Your task to perform on an android device: Open Youtube and go to the subscriptions tab Image 0: 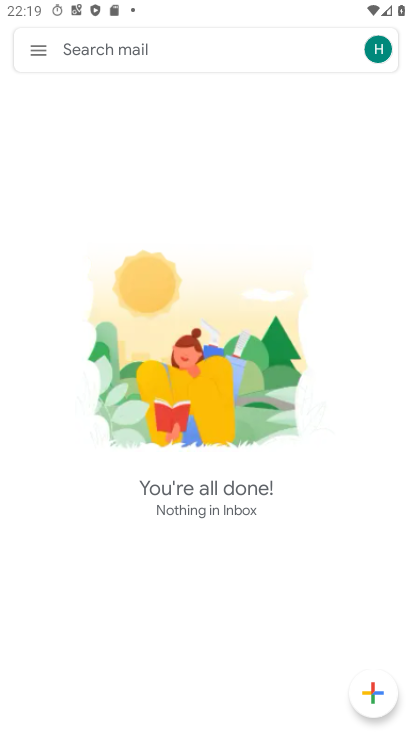
Step 0: press back button
Your task to perform on an android device: Open Youtube and go to the subscriptions tab Image 1: 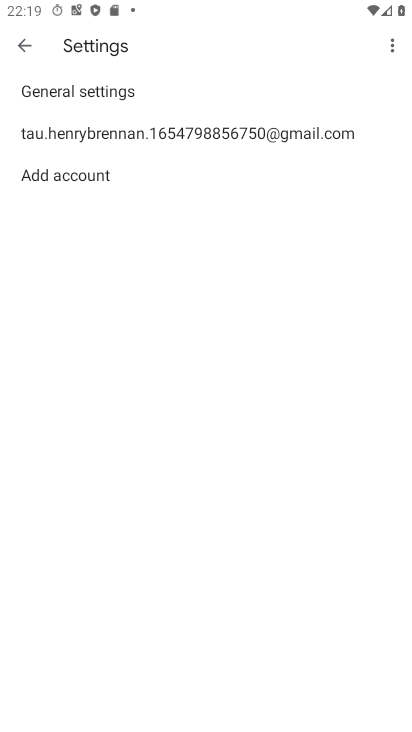
Step 1: press back button
Your task to perform on an android device: Open Youtube and go to the subscriptions tab Image 2: 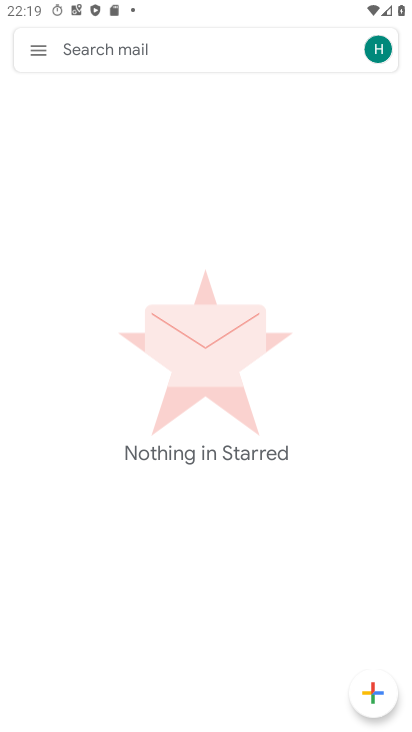
Step 2: press back button
Your task to perform on an android device: Open Youtube and go to the subscriptions tab Image 3: 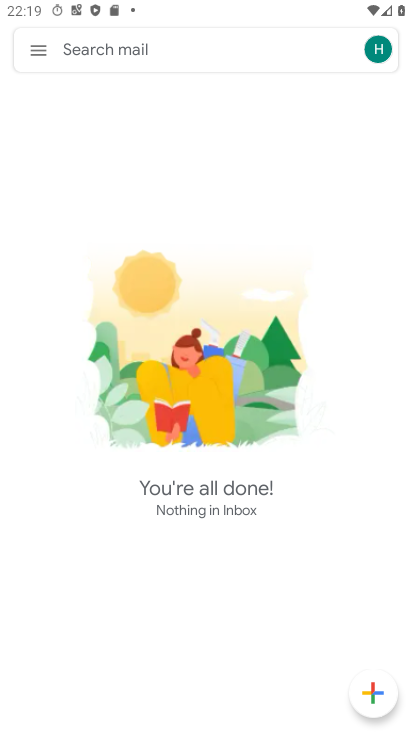
Step 3: press back button
Your task to perform on an android device: Open Youtube and go to the subscriptions tab Image 4: 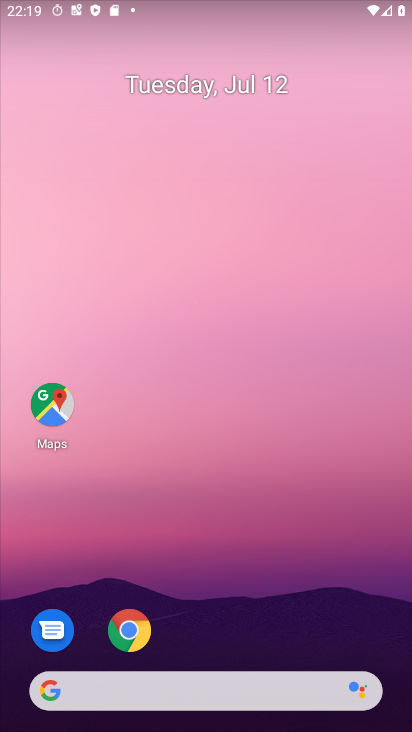
Step 4: drag from (221, 619) to (292, 0)
Your task to perform on an android device: Open Youtube and go to the subscriptions tab Image 5: 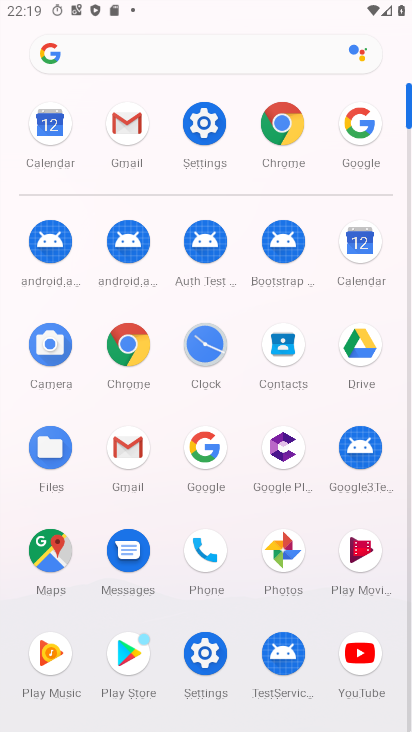
Step 5: click (361, 664)
Your task to perform on an android device: Open Youtube and go to the subscriptions tab Image 6: 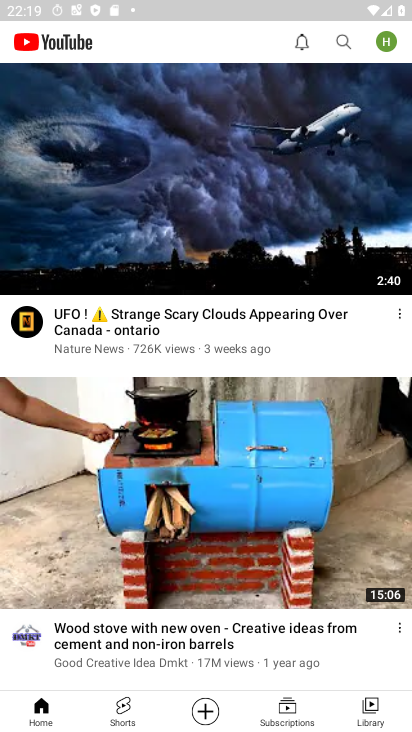
Step 6: click (287, 705)
Your task to perform on an android device: Open Youtube and go to the subscriptions tab Image 7: 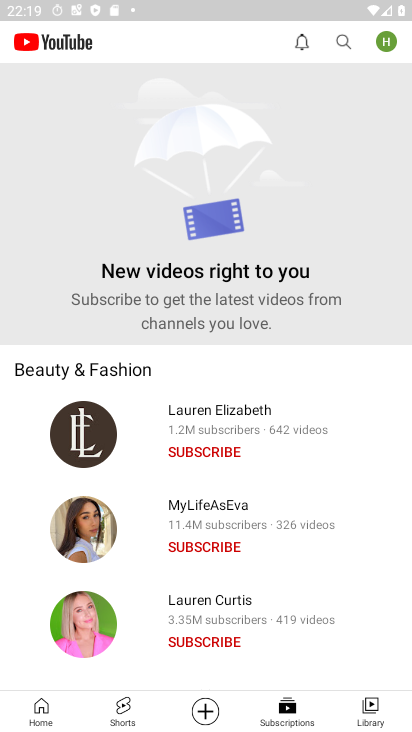
Step 7: task complete